Your task to perform on an android device: Open the Play Movies app and select the watchlist tab. Image 0: 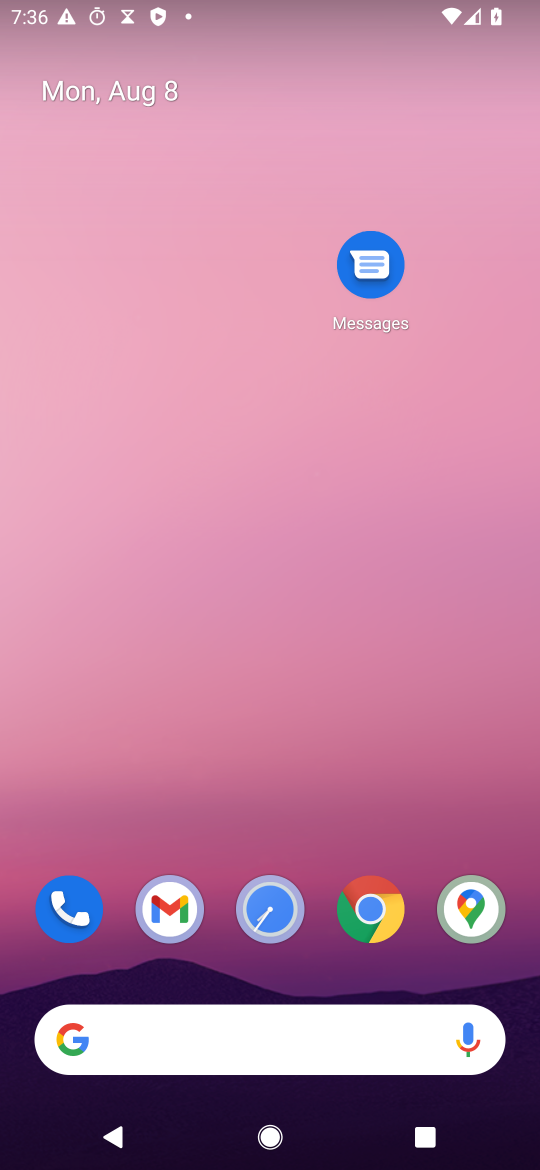
Step 0: press home button
Your task to perform on an android device: Open the Play Movies app and select the watchlist tab. Image 1: 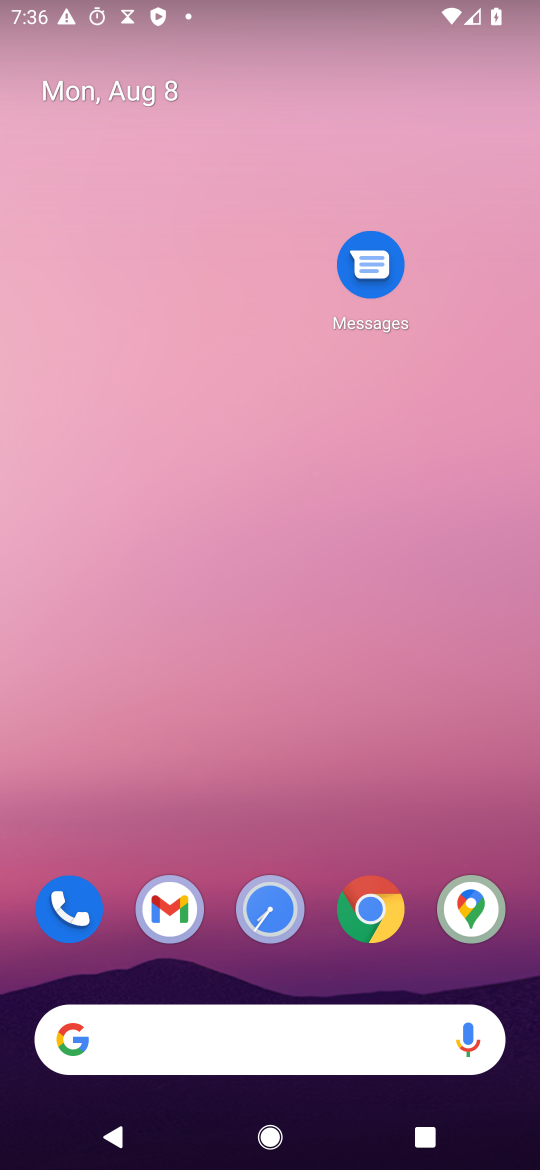
Step 1: task complete